Your task to perform on an android device: Show me popular games on the Play Store Image 0: 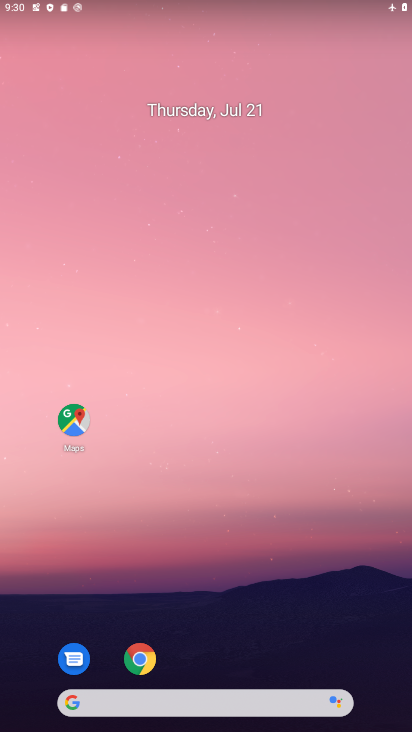
Step 0: drag from (227, 653) to (218, 70)
Your task to perform on an android device: Show me popular games on the Play Store Image 1: 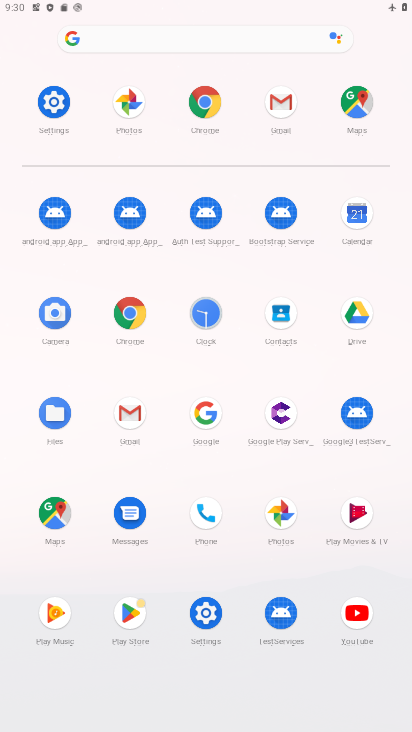
Step 1: click (138, 612)
Your task to perform on an android device: Show me popular games on the Play Store Image 2: 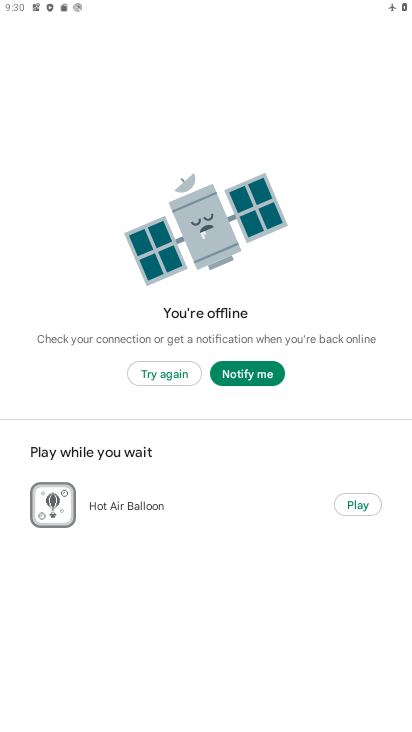
Step 2: click (154, 373)
Your task to perform on an android device: Show me popular games on the Play Store Image 3: 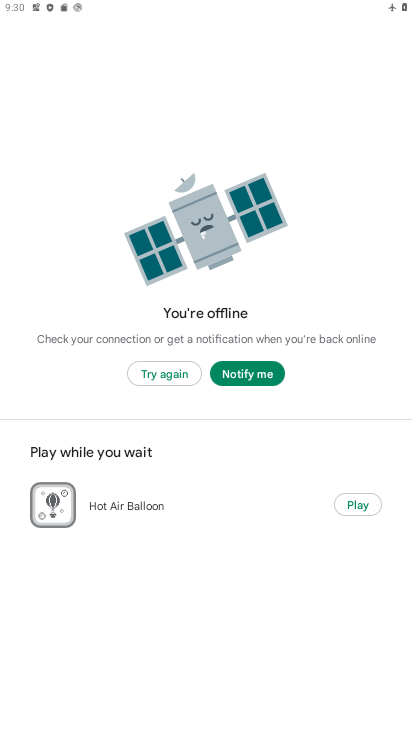
Step 3: task complete